Your task to perform on an android device: Open Youtube and go to the subscriptions tab Image 0: 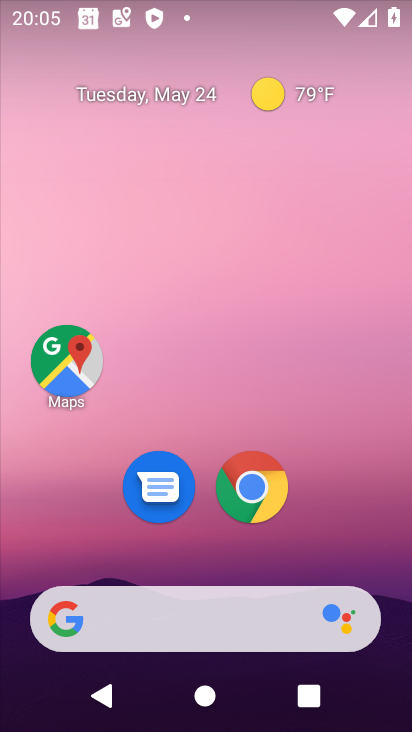
Step 0: press home button
Your task to perform on an android device: Open Youtube and go to the subscriptions tab Image 1: 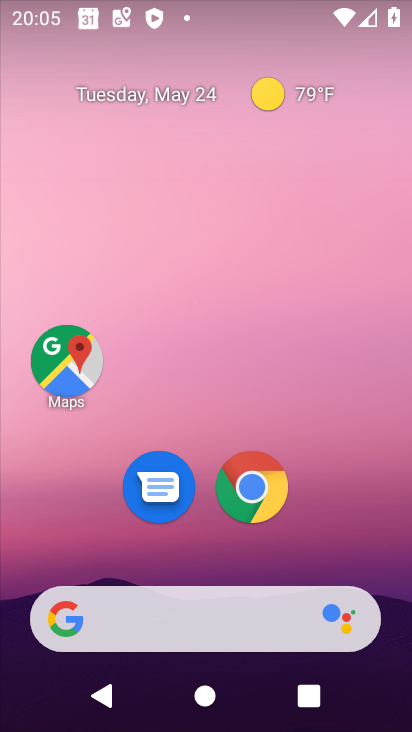
Step 1: drag from (10, 555) to (231, 161)
Your task to perform on an android device: Open Youtube and go to the subscriptions tab Image 2: 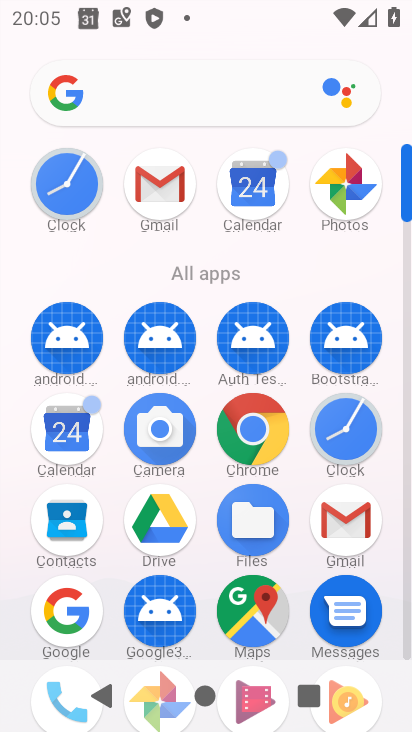
Step 2: drag from (22, 579) to (219, 156)
Your task to perform on an android device: Open Youtube and go to the subscriptions tab Image 3: 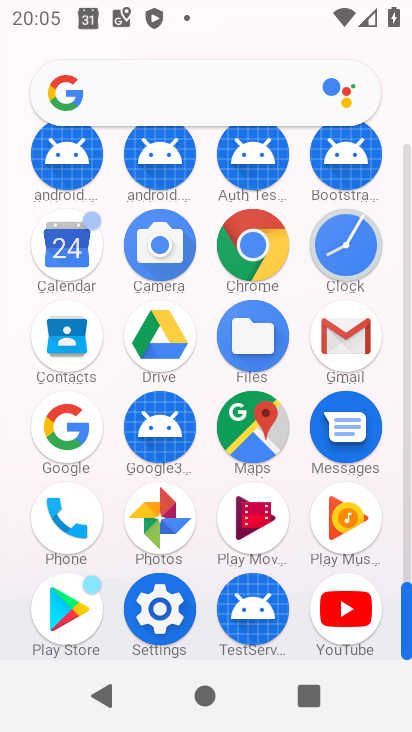
Step 3: click (367, 613)
Your task to perform on an android device: Open Youtube and go to the subscriptions tab Image 4: 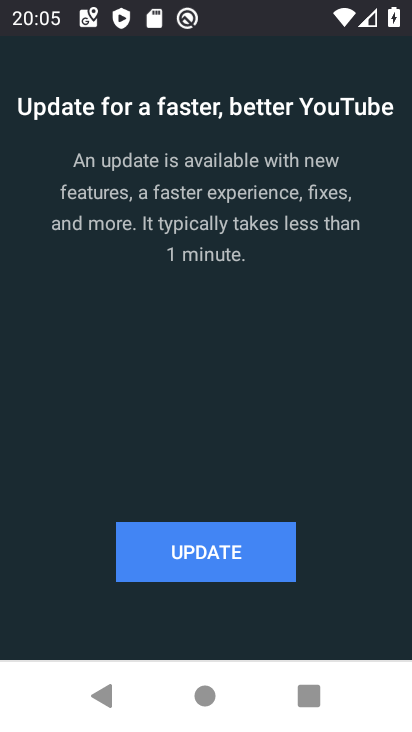
Step 4: task complete